Your task to perform on an android device: open app "Microsoft Excel" (install if not already installed) Image 0: 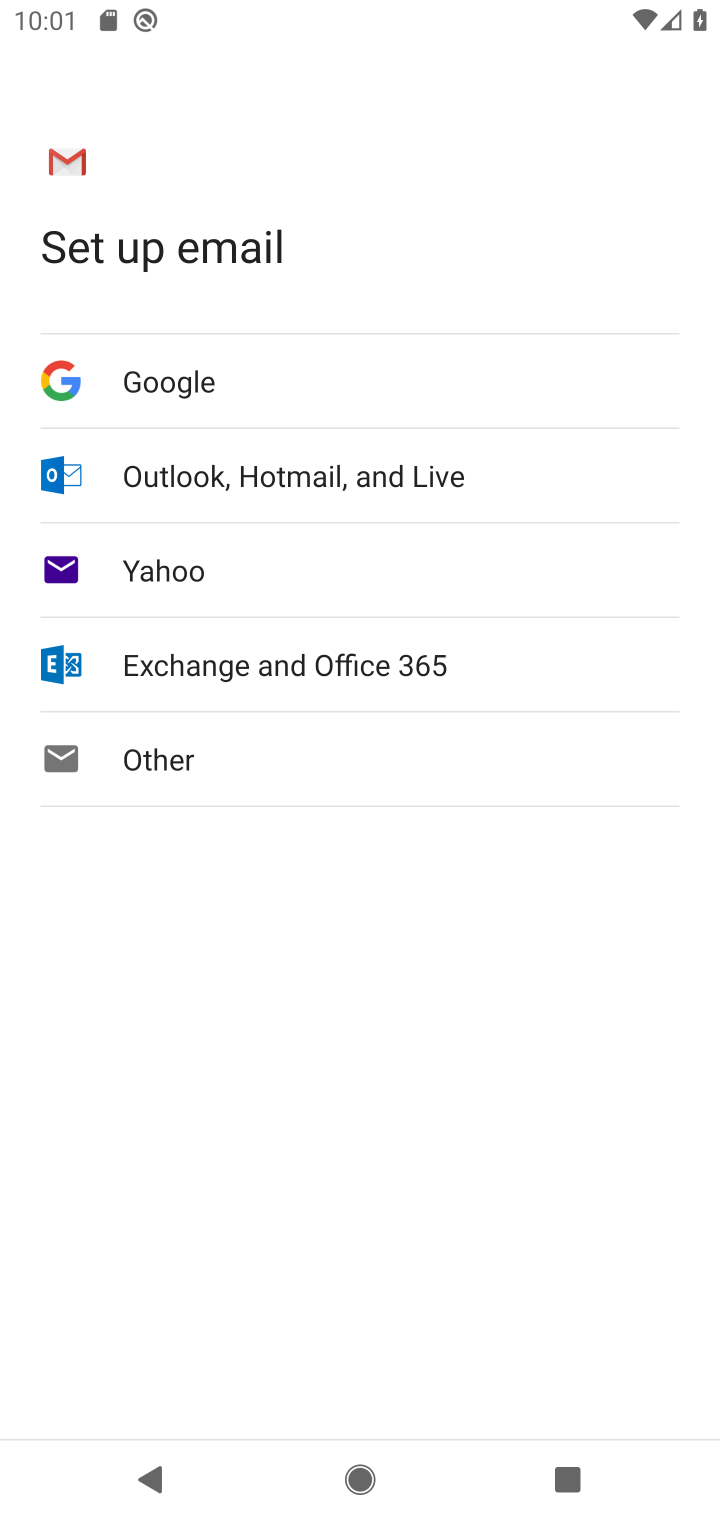
Step 0: press home button
Your task to perform on an android device: open app "Microsoft Excel" (install if not already installed) Image 1: 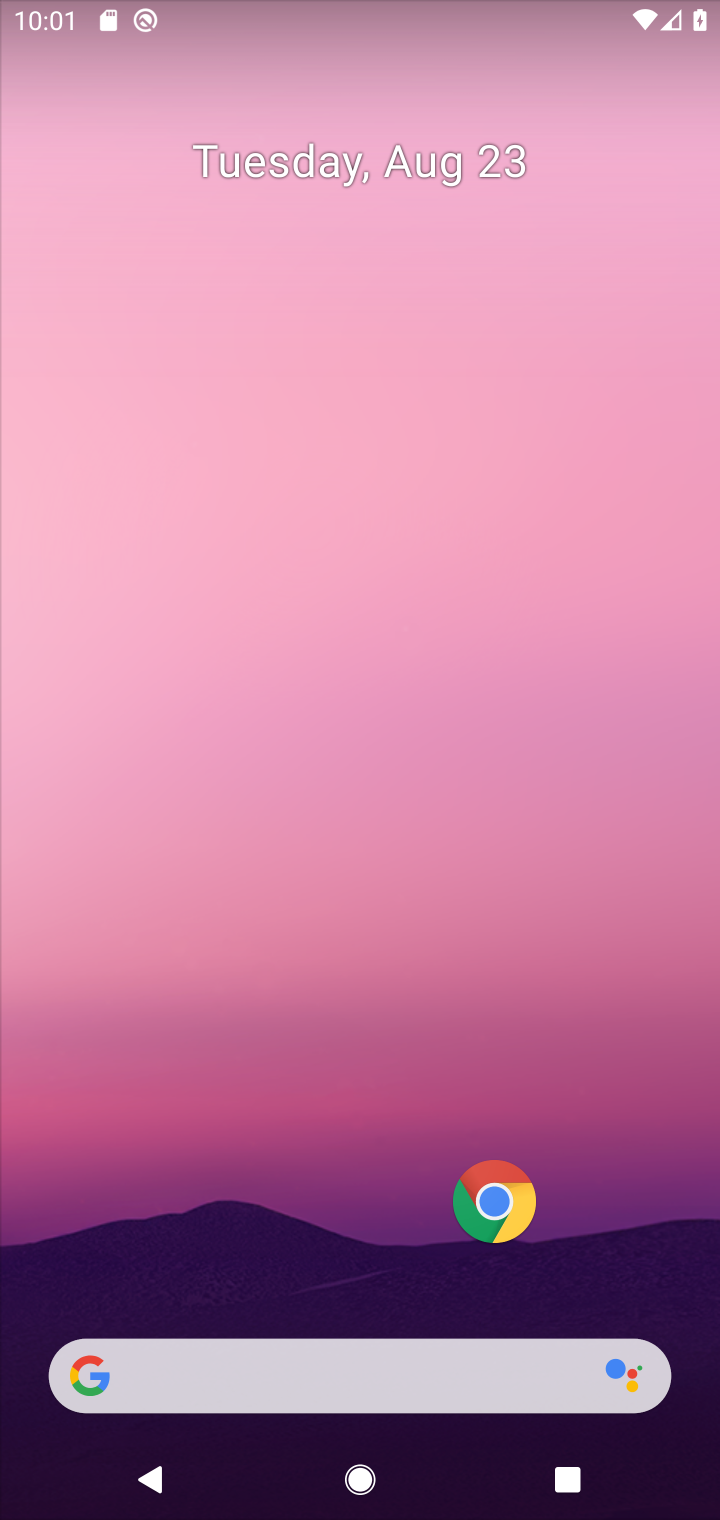
Step 1: drag from (292, 1353) to (403, 329)
Your task to perform on an android device: open app "Microsoft Excel" (install if not already installed) Image 2: 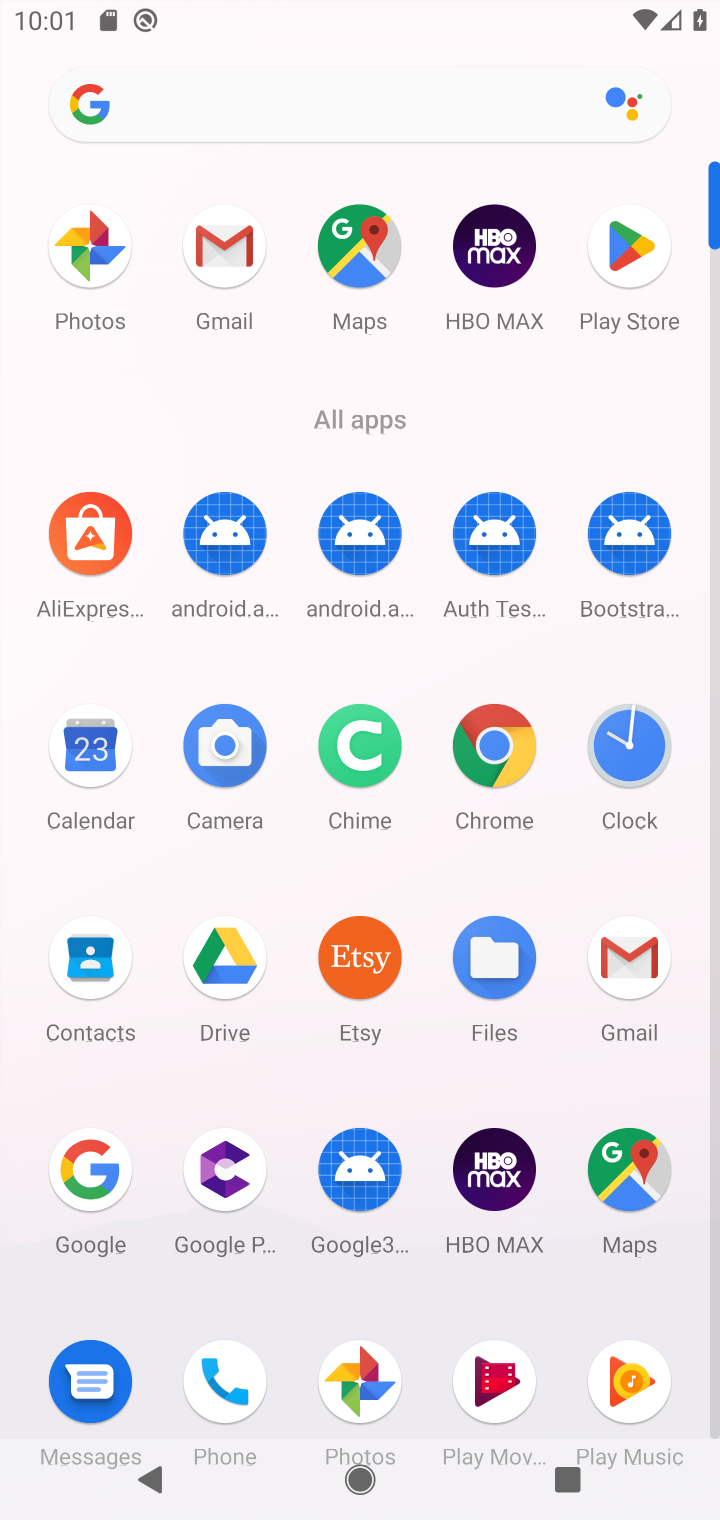
Step 2: click (646, 239)
Your task to perform on an android device: open app "Microsoft Excel" (install if not already installed) Image 3: 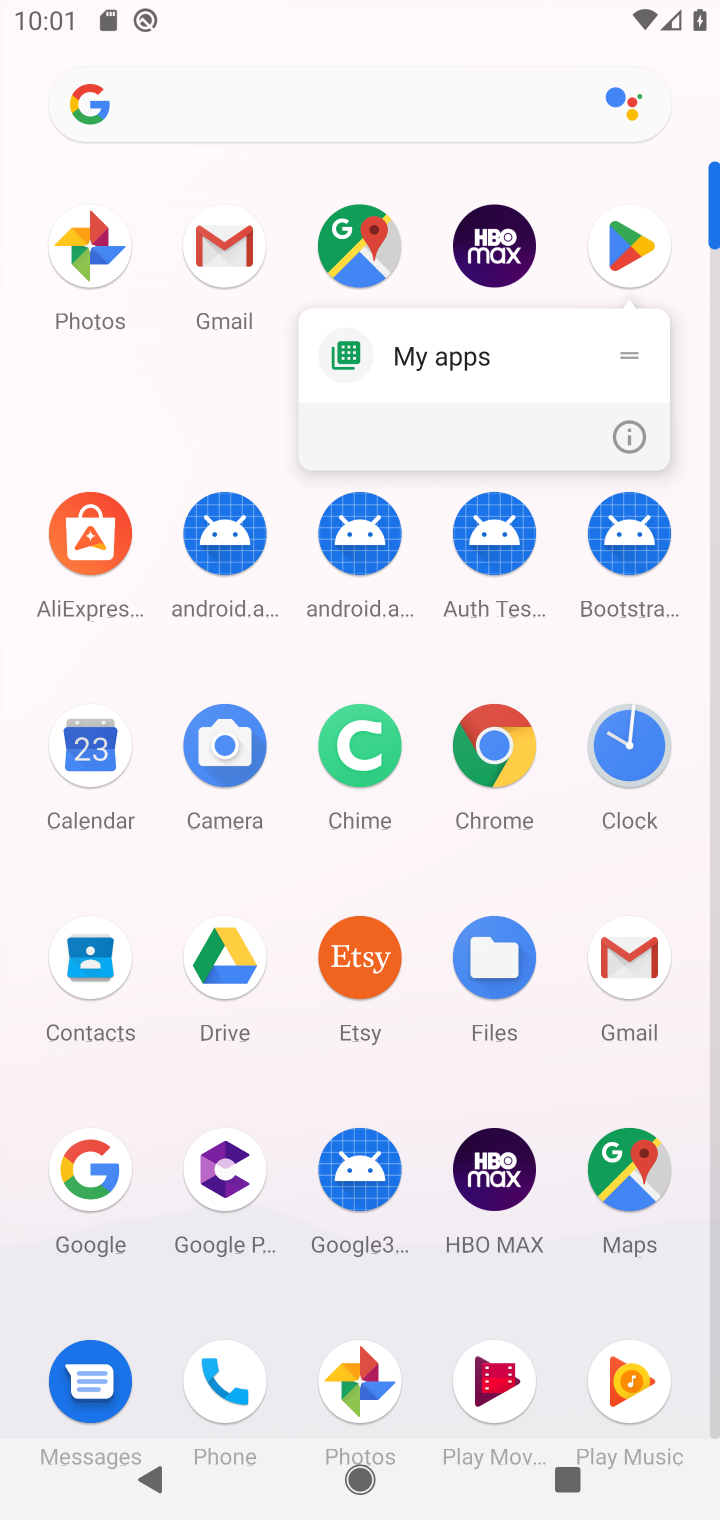
Step 3: click (643, 239)
Your task to perform on an android device: open app "Microsoft Excel" (install if not already installed) Image 4: 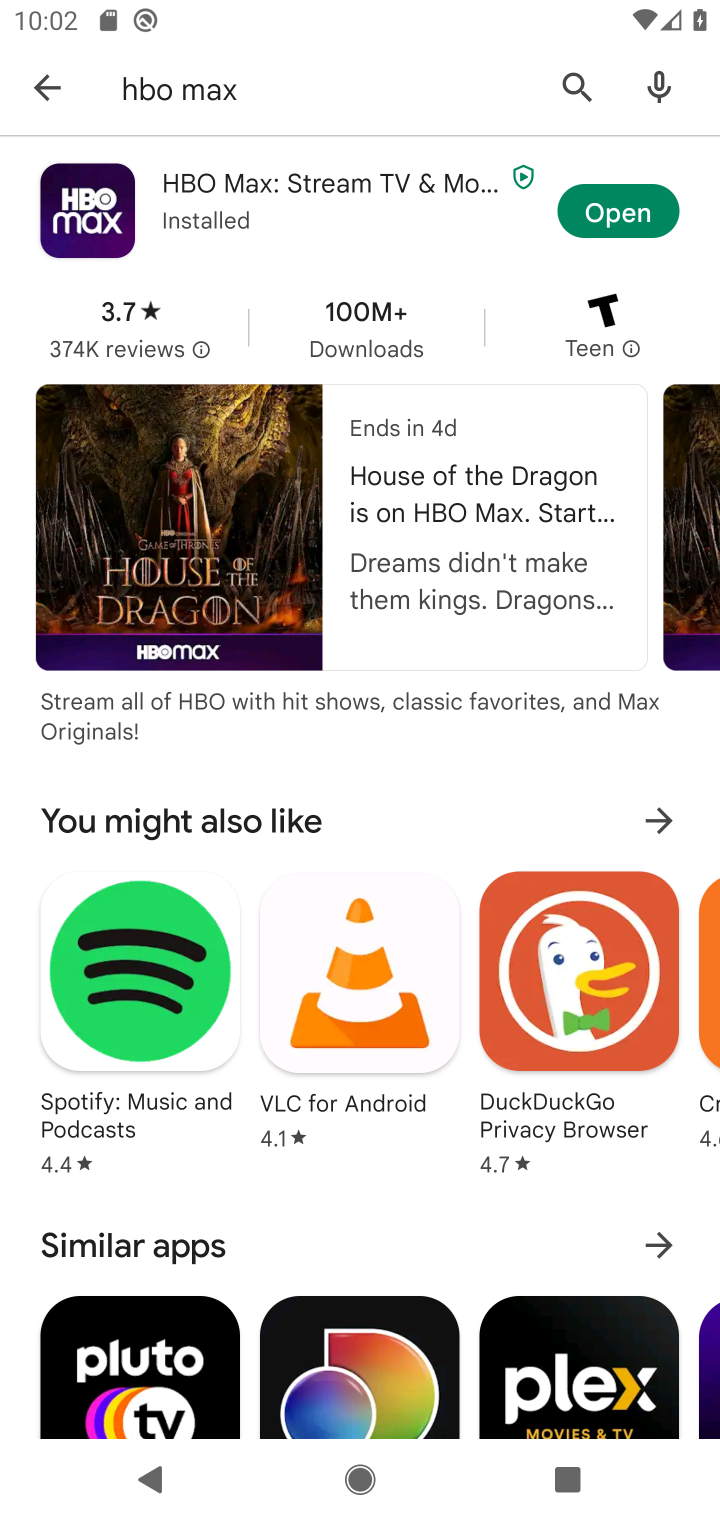
Step 4: click (46, 92)
Your task to perform on an android device: open app "Microsoft Excel" (install if not already installed) Image 5: 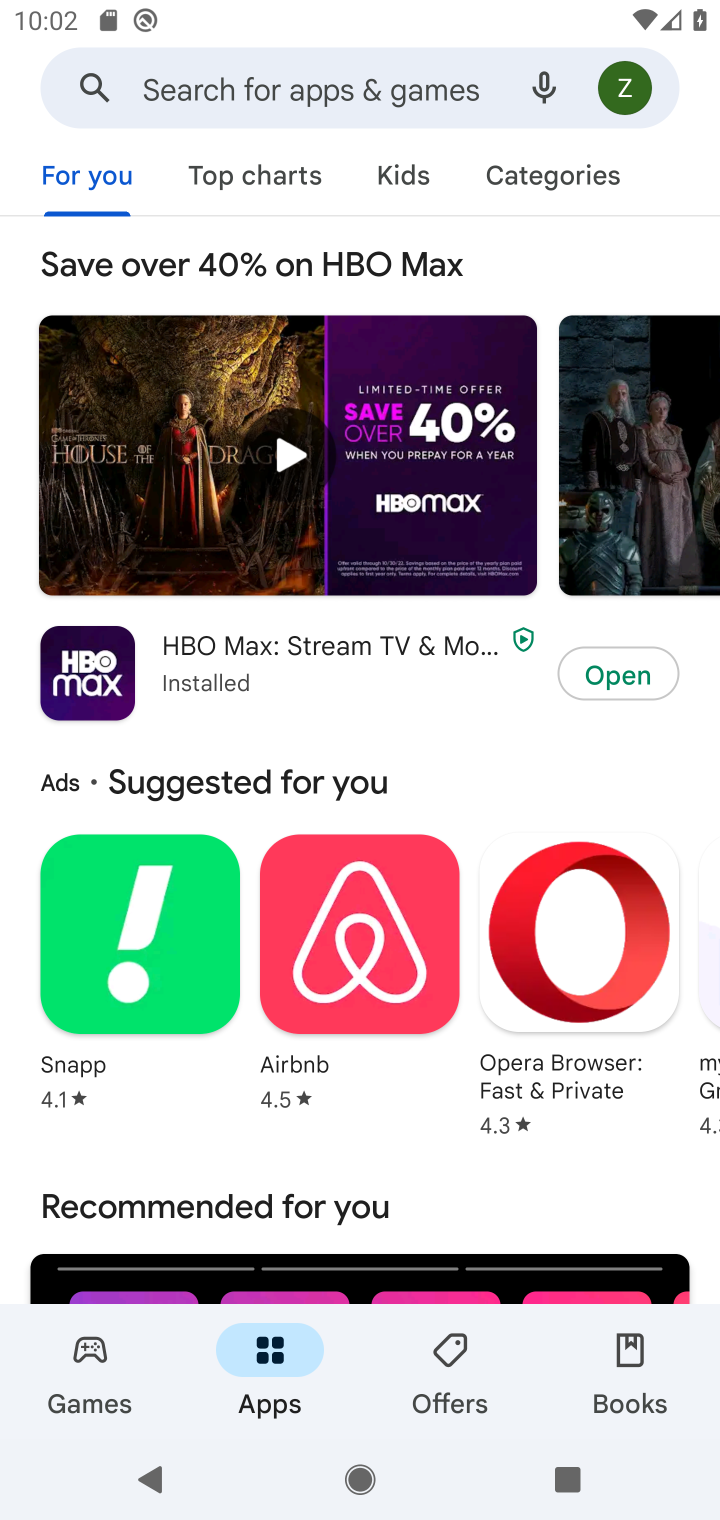
Step 5: click (322, 81)
Your task to perform on an android device: open app "Microsoft Excel" (install if not already installed) Image 6: 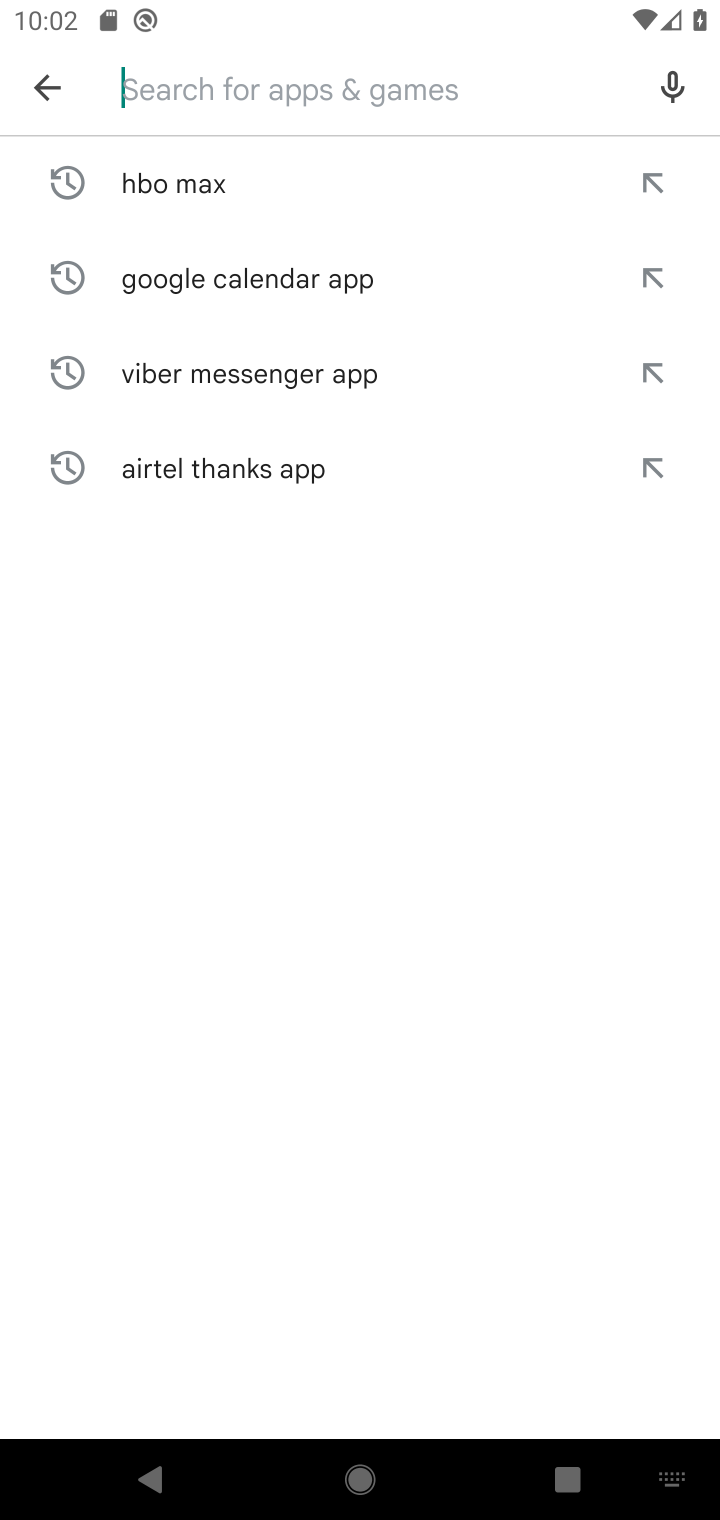
Step 6: type "Microsoft Excel "
Your task to perform on an android device: open app "Microsoft Excel" (install if not already installed) Image 7: 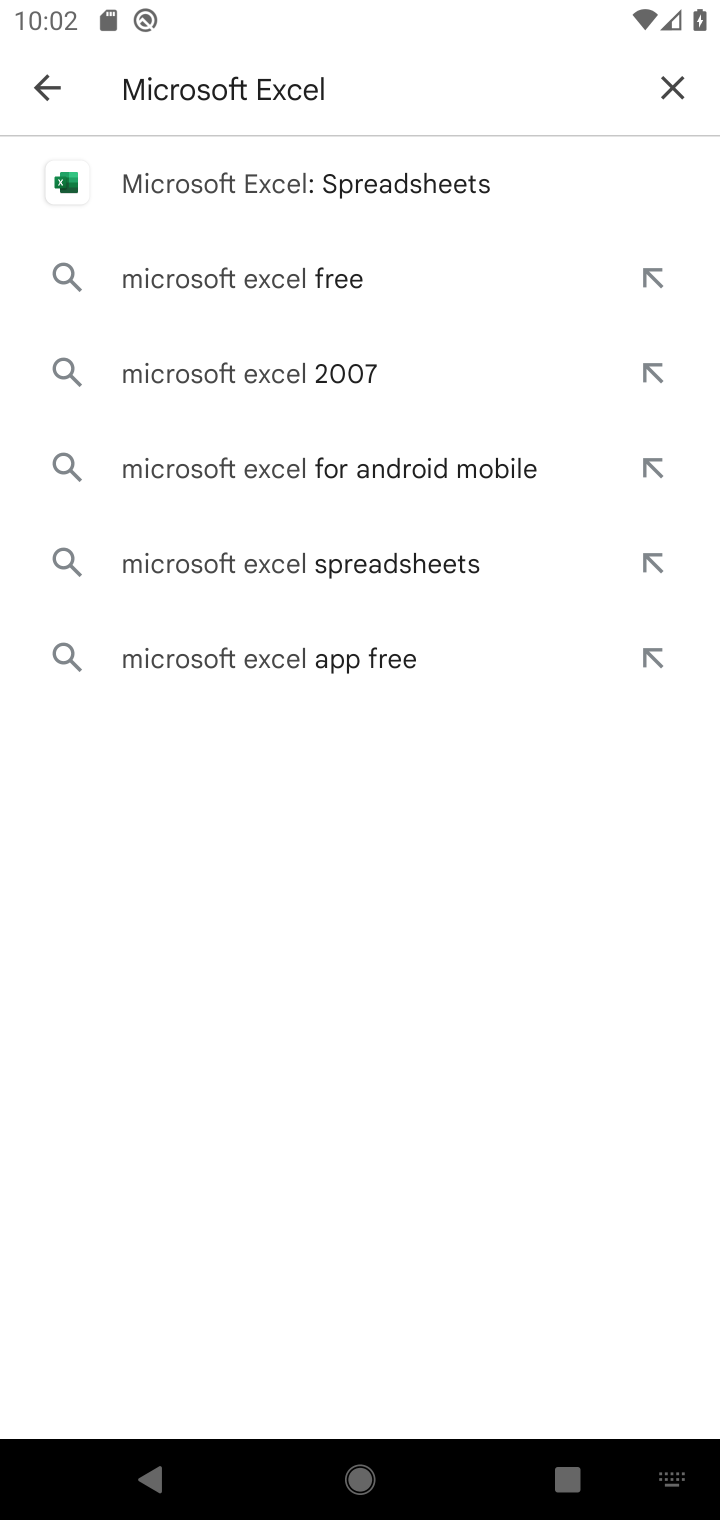
Step 7: click (362, 179)
Your task to perform on an android device: open app "Microsoft Excel" (install if not already installed) Image 8: 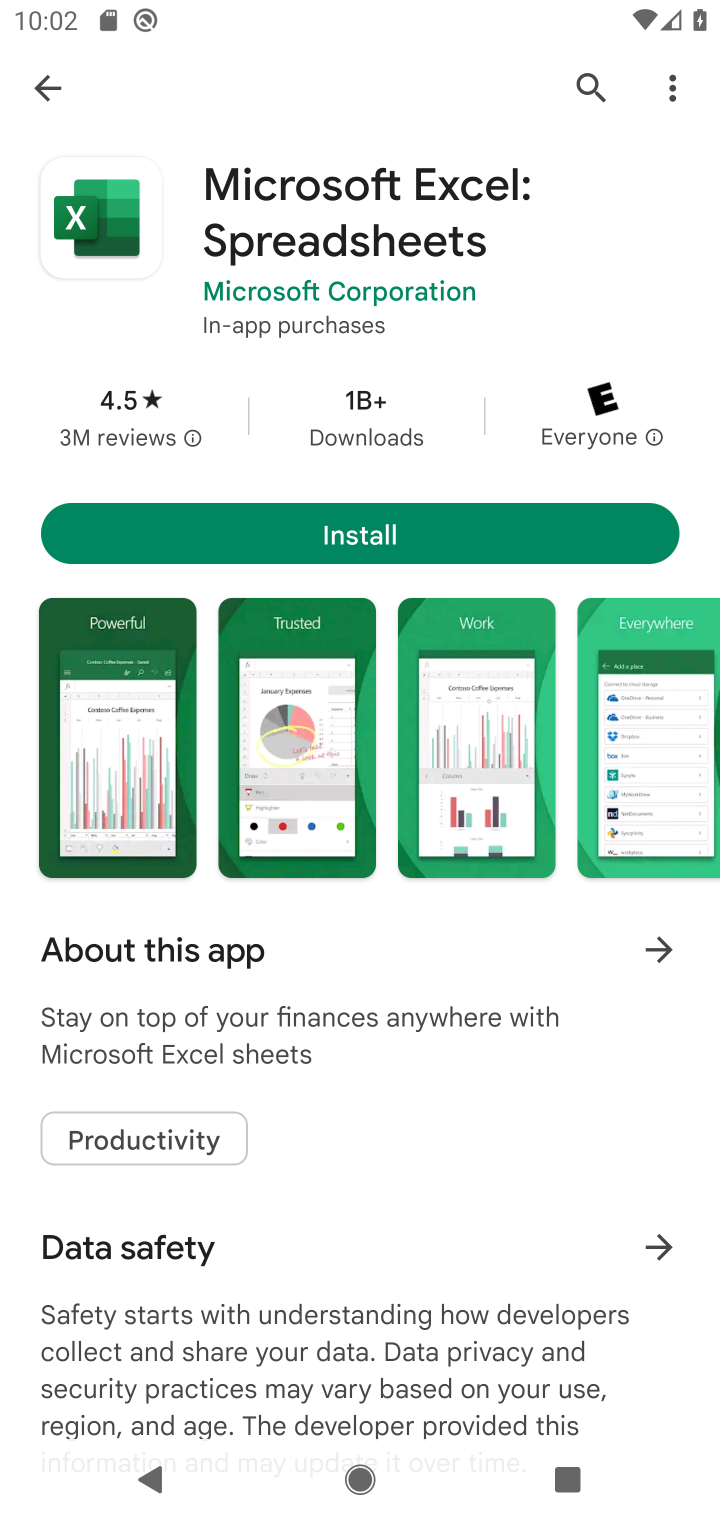
Step 8: click (433, 509)
Your task to perform on an android device: open app "Microsoft Excel" (install if not already installed) Image 9: 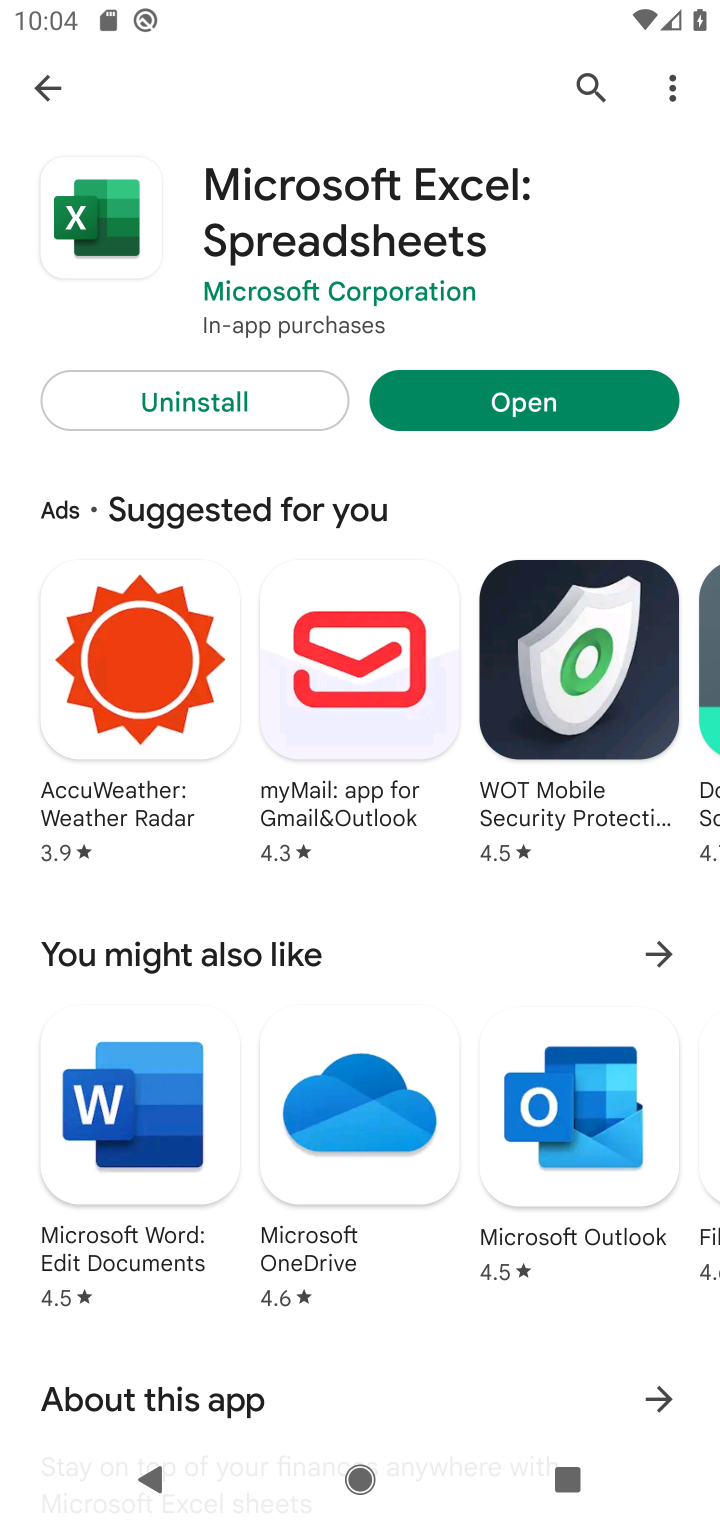
Step 9: task complete